Your task to perform on an android device: toggle location history Image 0: 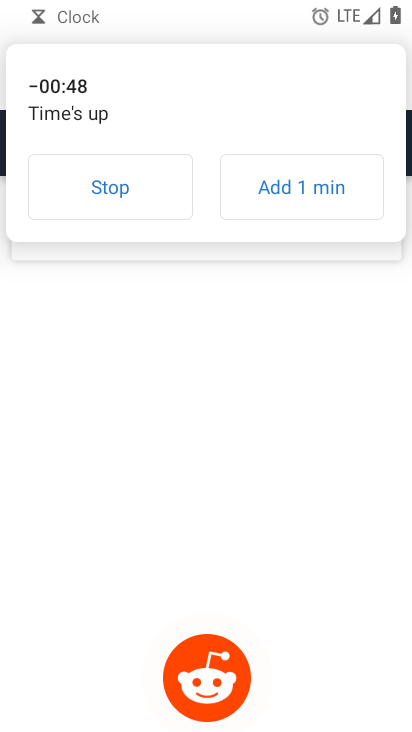
Step 0: press home button
Your task to perform on an android device: toggle location history Image 1: 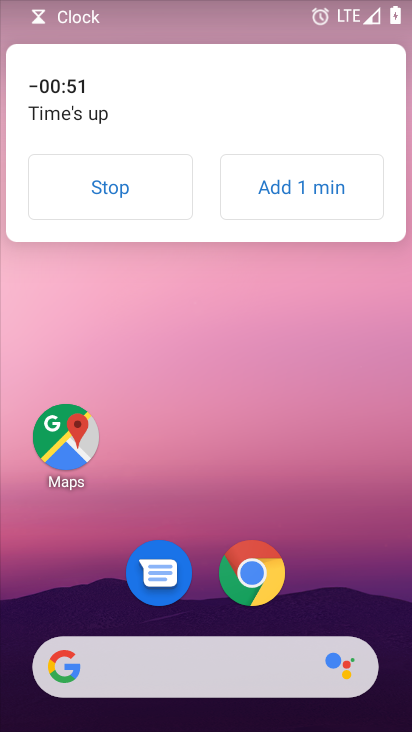
Step 1: click (124, 196)
Your task to perform on an android device: toggle location history Image 2: 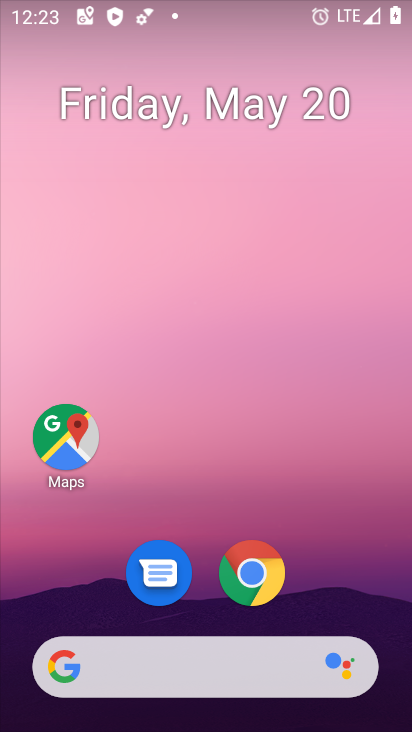
Step 2: drag from (201, 610) to (227, 217)
Your task to perform on an android device: toggle location history Image 3: 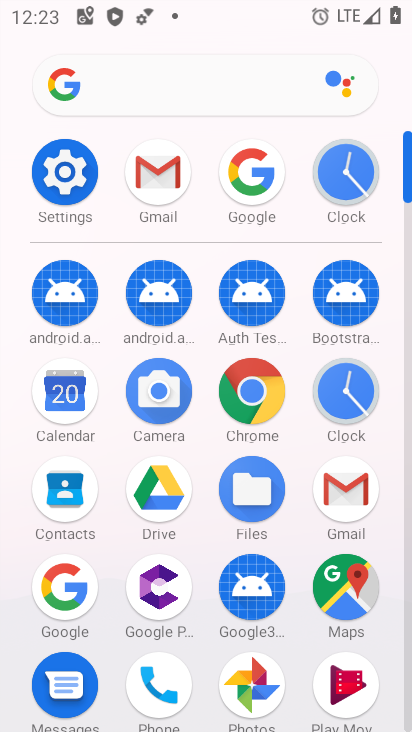
Step 3: click (82, 180)
Your task to perform on an android device: toggle location history Image 4: 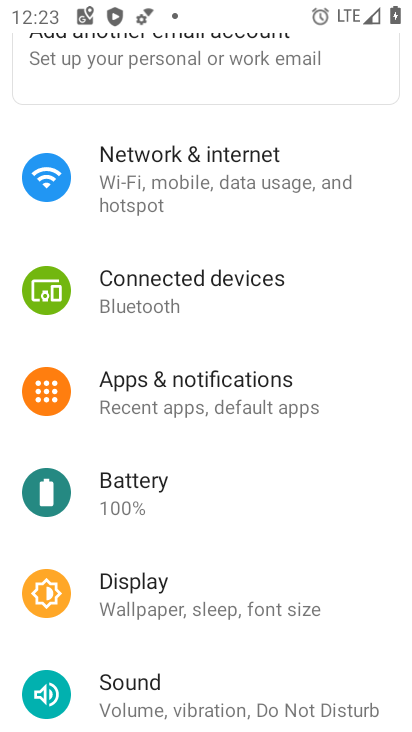
Step 4: drag from (188, 602) to (233, 288)
Your task to perform on an android device: toggle location history Image 5: 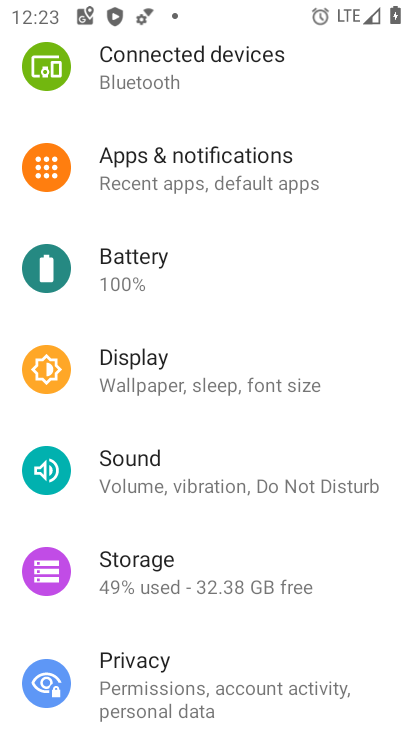
Step 5: drag from (227, 654) to (223, 338)
Your task to perform on an android device: toggle location history Image 6: 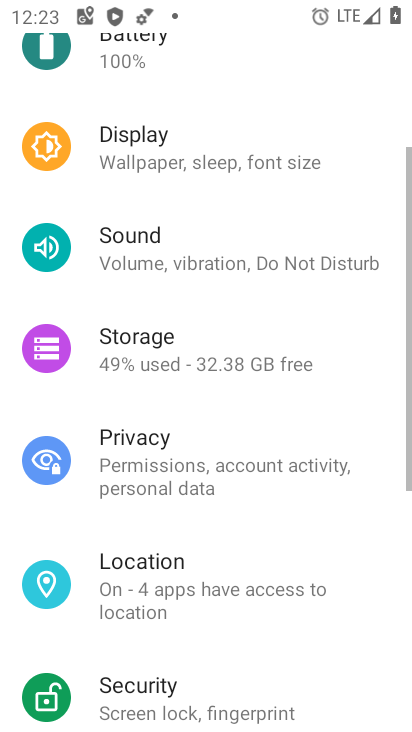
Step 6: click (185, 597)
Your task to perform on an android device: toggle location history Image 7: 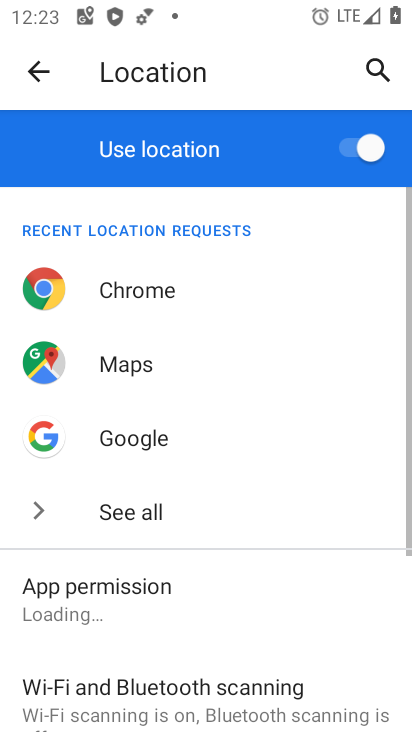
Step 7: drag from (185, 597) to (229, 341)
Your task to perform on an android device: toggle location history Image 8: 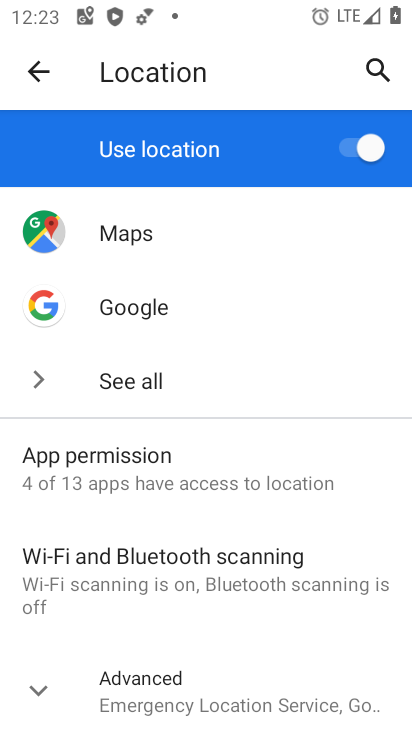
Step 8: drag from (196, 574) to (237, 337)
Your task to perform on an android device: toggle location history Image 9: 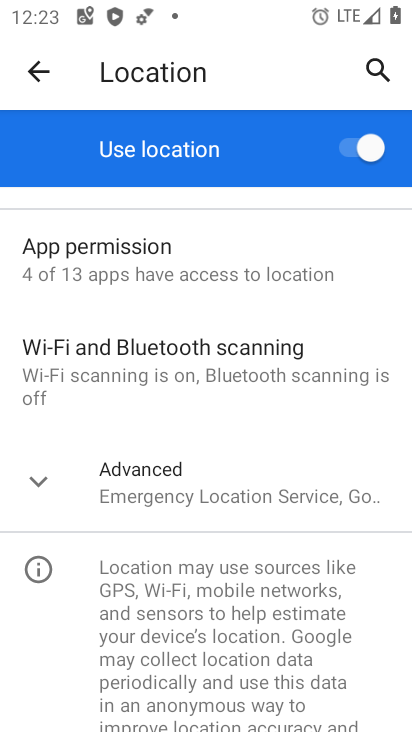
Step 9: click (184, 514)
Your task to perform on an android device: toggle location history Image 10: 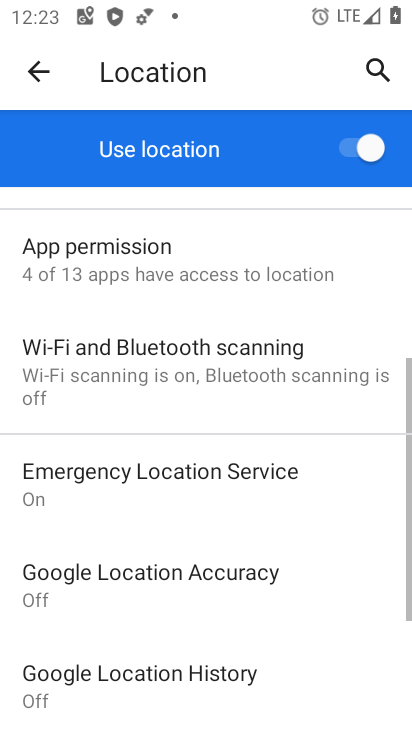
Step 10: drag from (222, 590) to (261, 371)
Your task to perform on an android device: toggle location history Image 11: 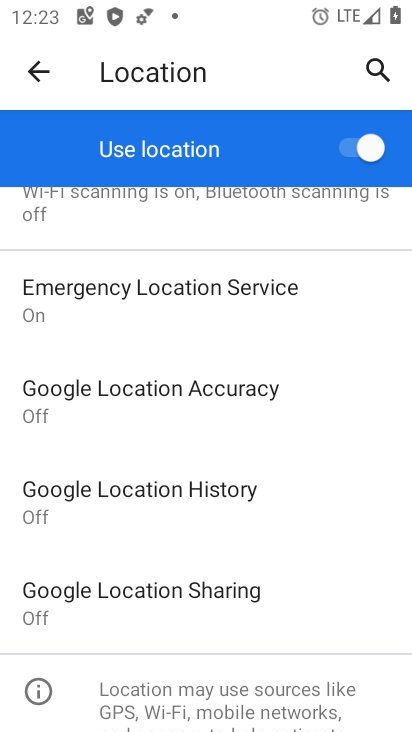
Step 11: click (220, 484)
Your task to perform on an android device: toggle location history Image 12: 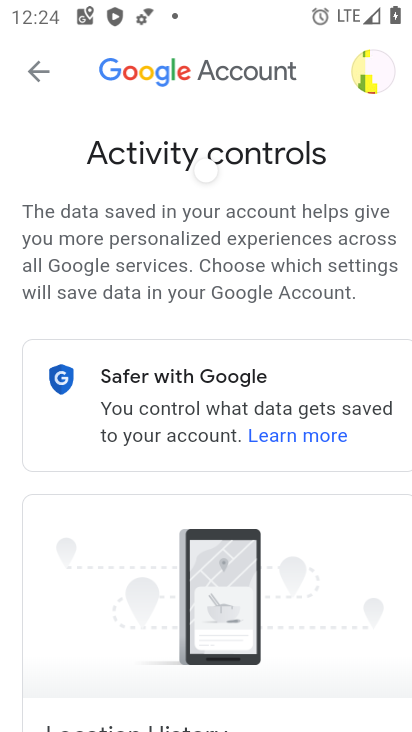
Step 12: drag from (270, 607) to (276, 278)
Your task to perform on an android device: toggle location history Image 13: 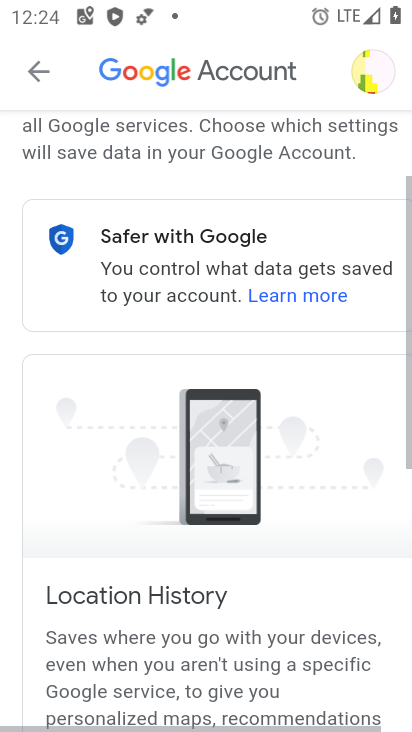
Step 13: drag from (269, 539) to (277, 303)
Your task to perform on an android device: toggle location history Image 14: 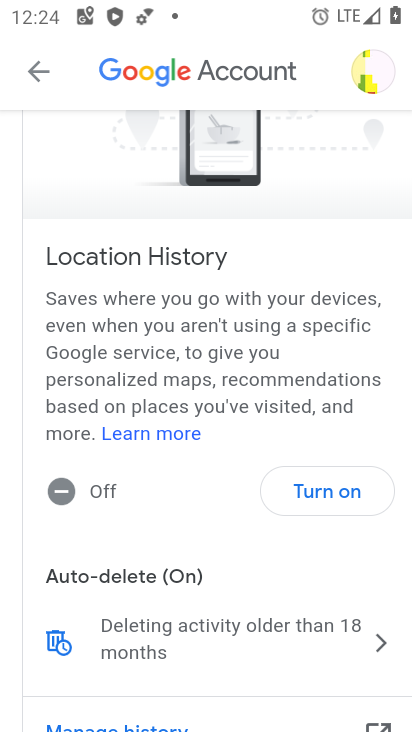
Step 14: click (312, 499)
Your task to perform on an android device: toggle location history Image 15: 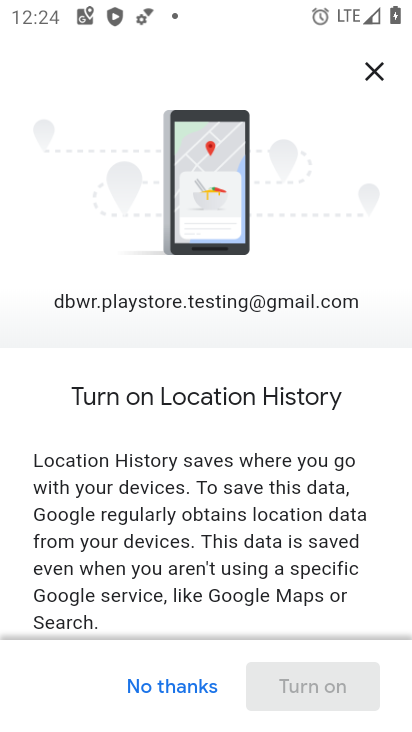
Step 15: drag from (116, 557) to (173, 235)
Your task to perform on an android device: toggle location history Image 16: 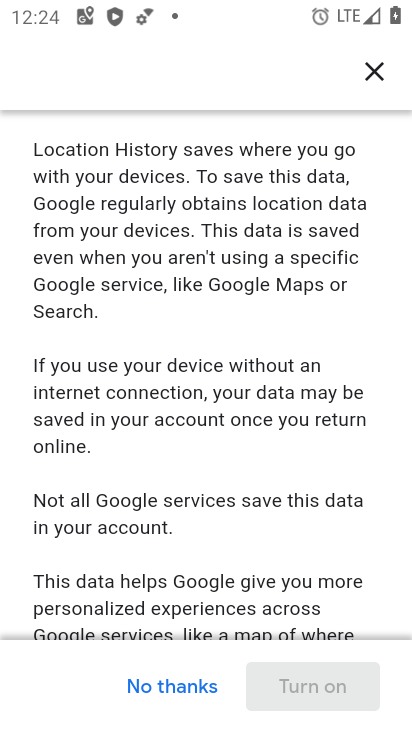
Step 16: drag from (164, 590) to (180, 239)
Your task to perform on an android device: toggle location history Image 17: 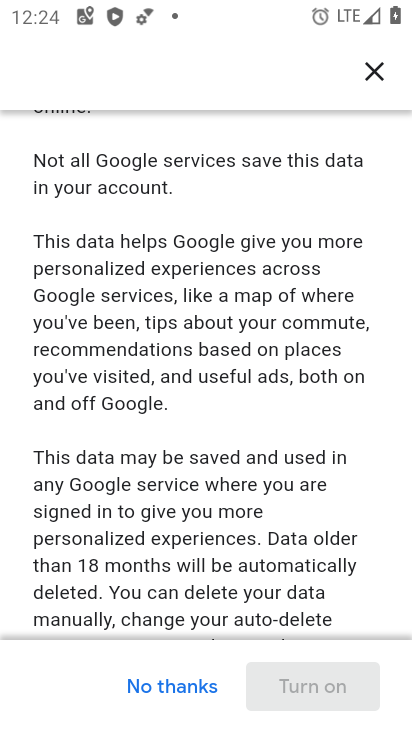
Step 17: drag from (180, 537) to (226, 149)
Your task to perform on an android device: toggle location history Image 18: 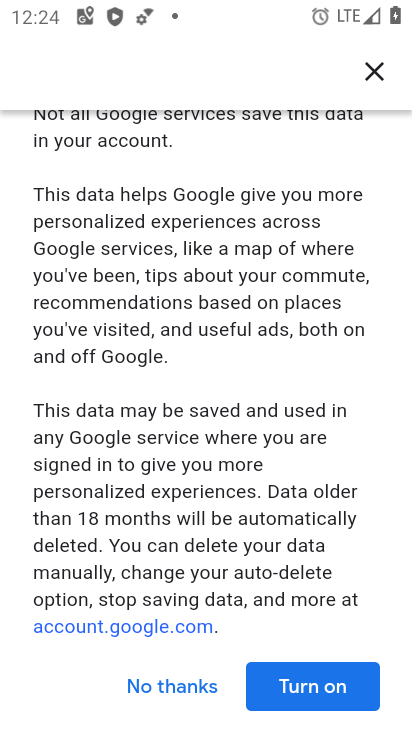
Step 18: click (297, 671)
Your task to perform on an android device: toggle location history Image 19: 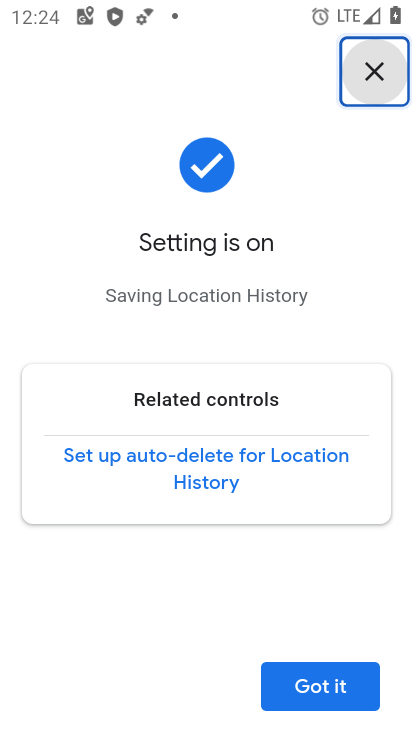
Step 19: task complete